Your task to perform on an android device: change the clock display to show seconds Image 0: 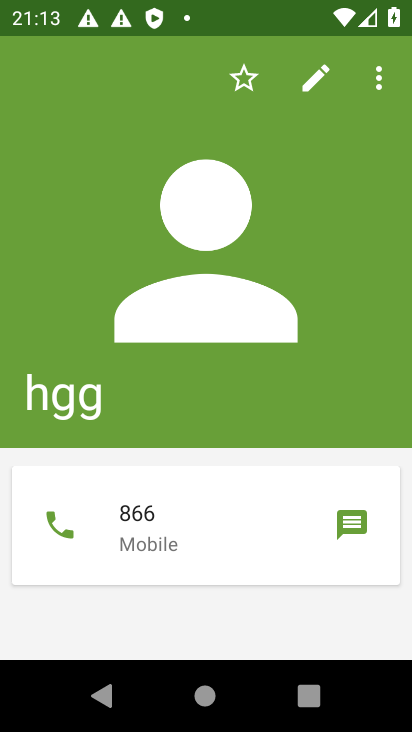
Step 0: press home button
Your task to perform on an android device: change the clock display to show seconds Image 1: 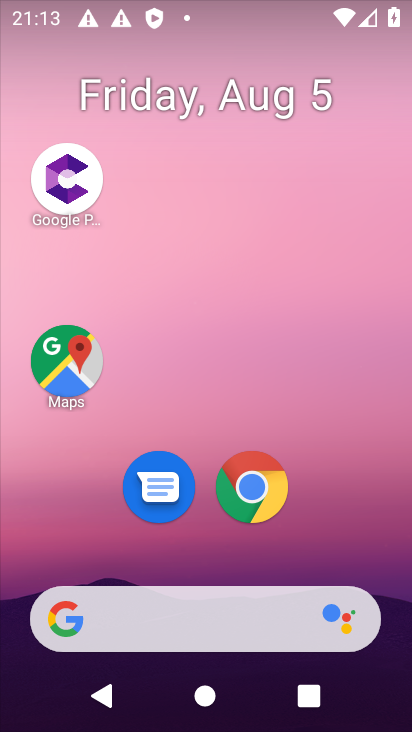
Step 1: drag from (109, 1) to (268, 54)
Your task to perform on an android device: change the clock display to show seconds Image 2: 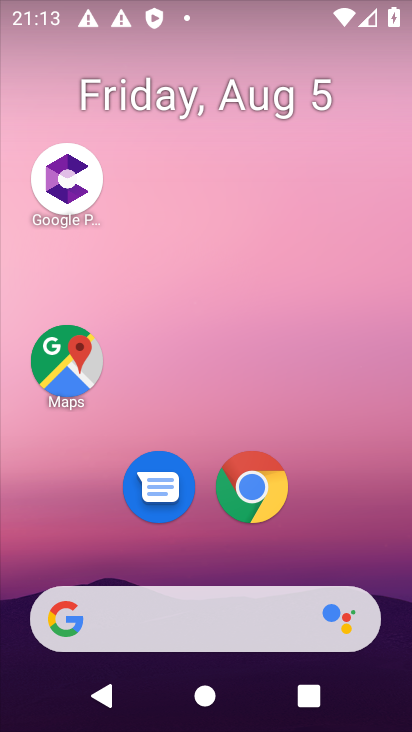
Step 2: drag from (224, 574) to (171, 19)
Your task to perform on an android device: change the clock display to show seconds Image 3: 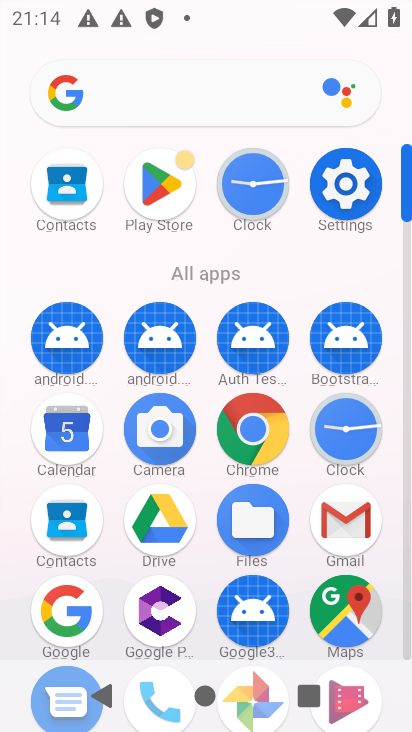
Step 3: click (364, 448)
Your task to perform on an android device: change the clock display to show seconds Image 4: 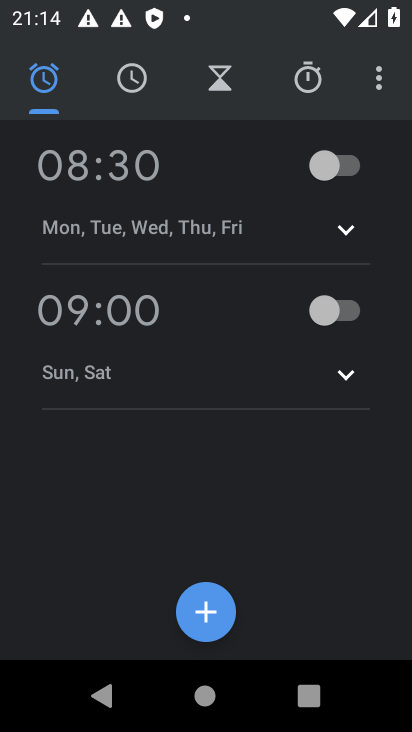
Step 4: click (382, 82)
Your task to perform on an android device: change the clock display to show seconds Image 5: 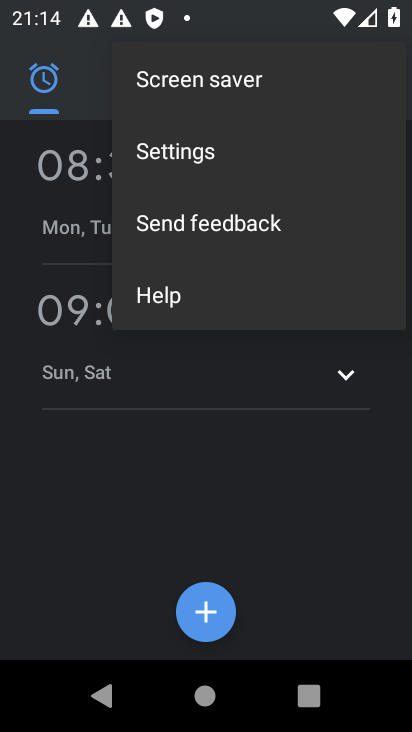
Step 5: click (184, 156)
Your task to perform on an android device: change the clock display to show seconds Image 6: 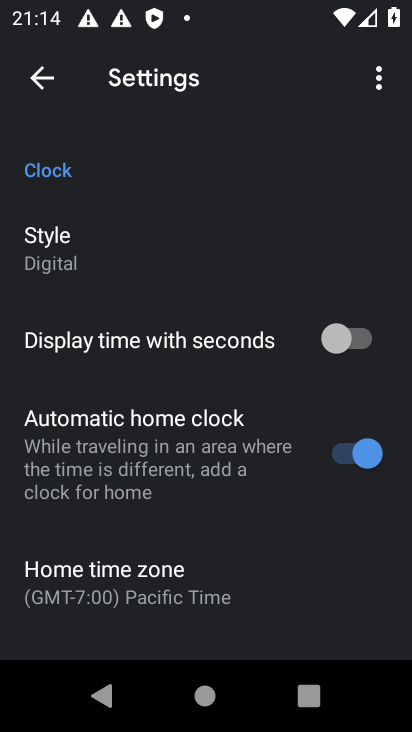
Step 6: click (341, 331)
Your task to perform on an android device: change the clock display to show seconds Image 7: 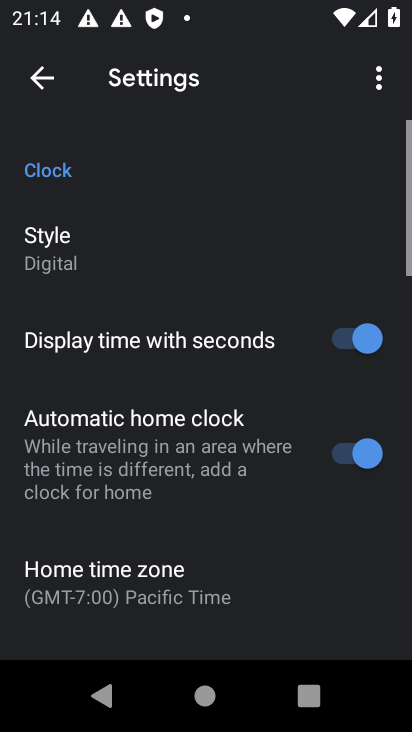
Step 7: task complete